Your task to perform on an android device: Open the phone app and click the voicemail tab. Image 0: 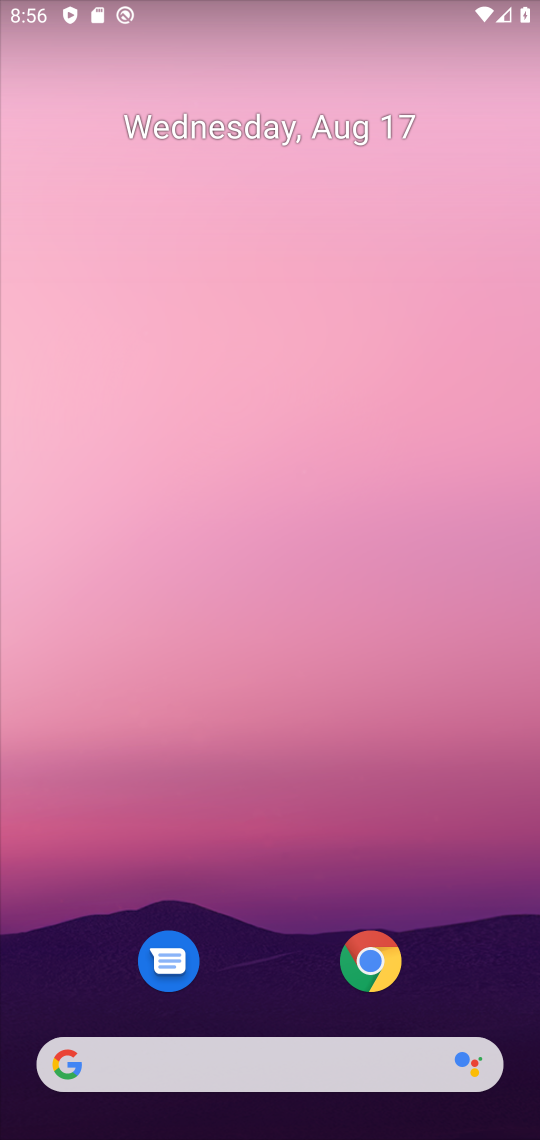
Step 0: drag from (250, 943) to (174, 85)
Your task to perform on an android device: Open the phone app and click the voicemail tab. Image 1: 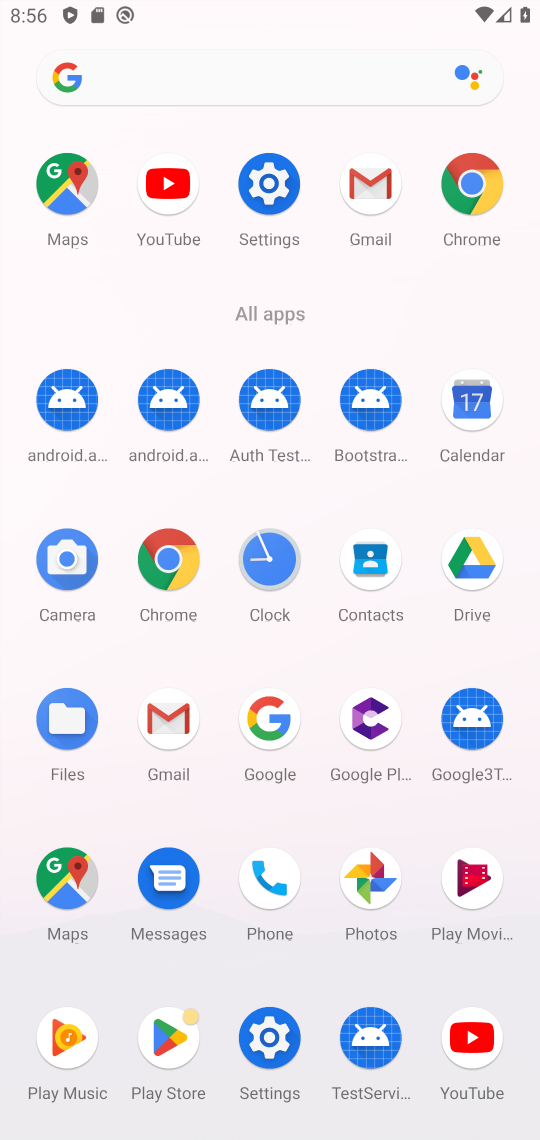
Step 1: click (261, 884)
Your task to perform on an android device: Open the phone app and click the voicemail tab. Image 2: 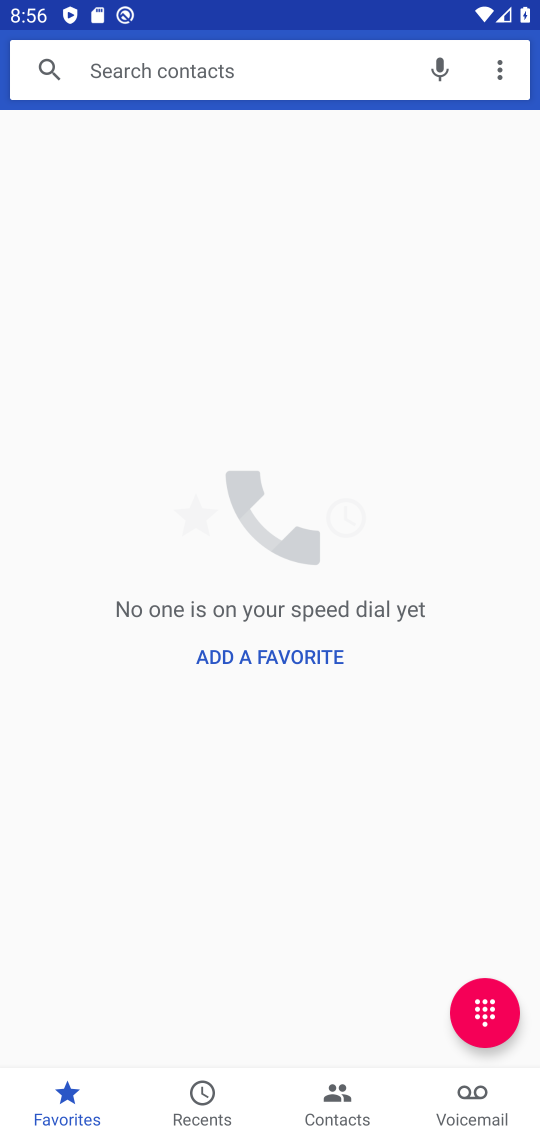
Step 2: click (448, 1118)
Your task to perform on an android device: Open the phone app and click the voicemail tab. Image 3: 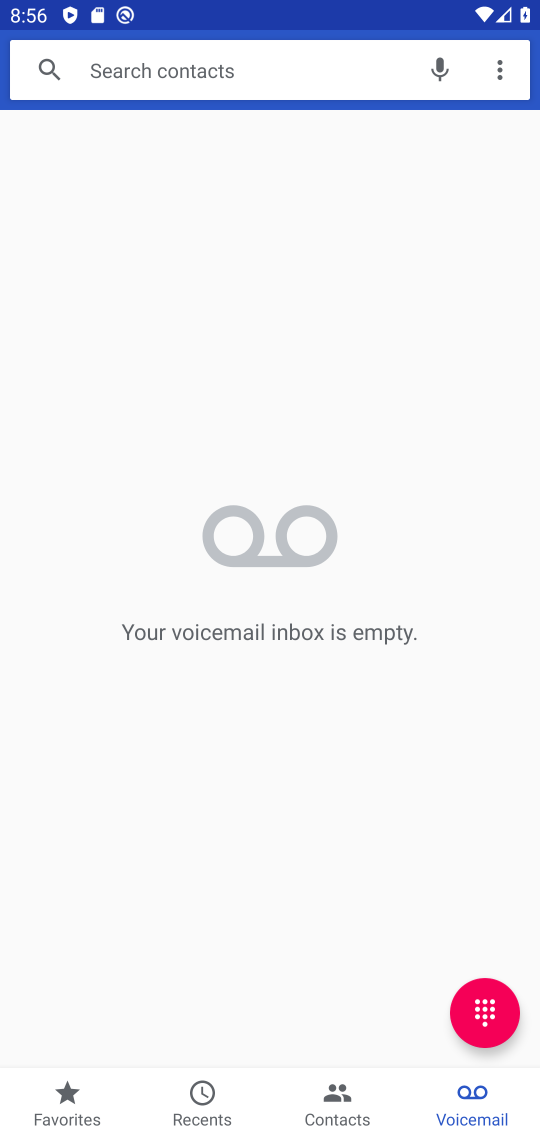
Step 3: task complete